Your task to perform on an android device: Show me popular videos on Youtube Image 0: 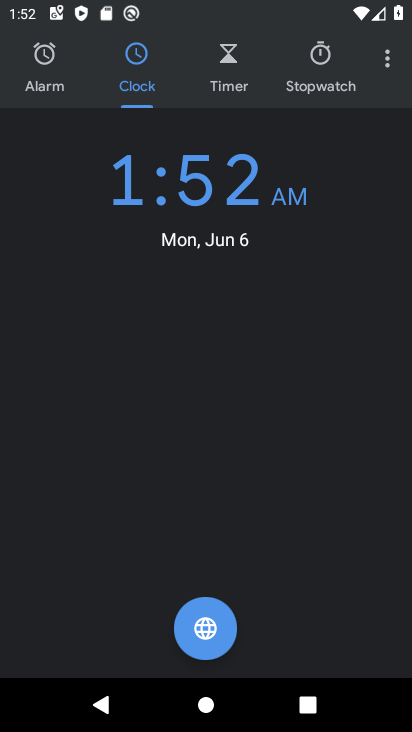
Step 0: press home button
Your task to perform on an android device: Show me popular videos on Youtube Image 1: 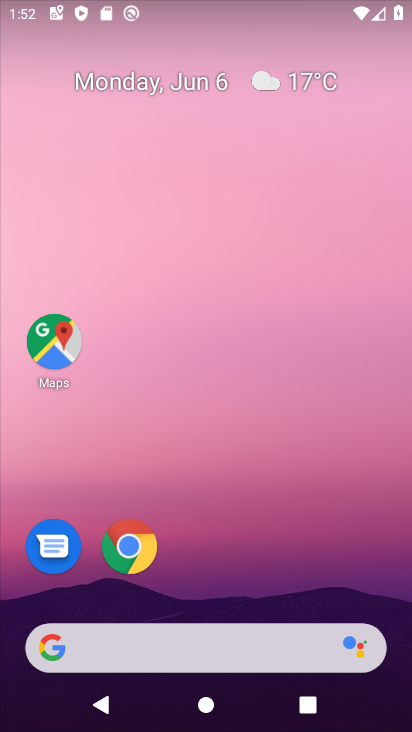
Step 1: drag from (247, 543) to (168, 150)
Your task to perform on an android device: Show me popular videos on Youtube Image 2: 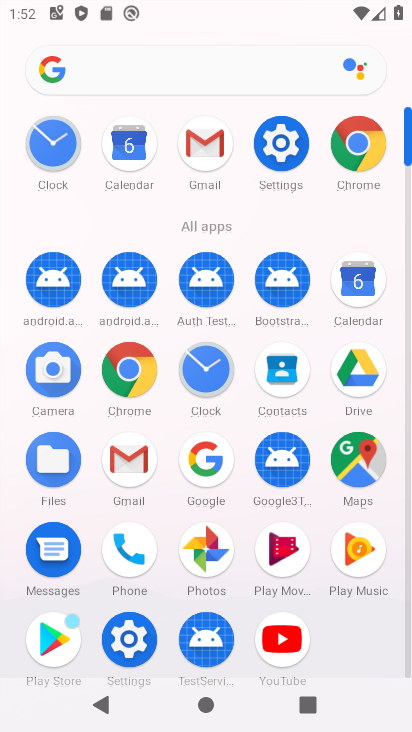
Step 2: click (291, 639)
Your task to perform on an android device: Show me popular videos on Youtube Image 3: 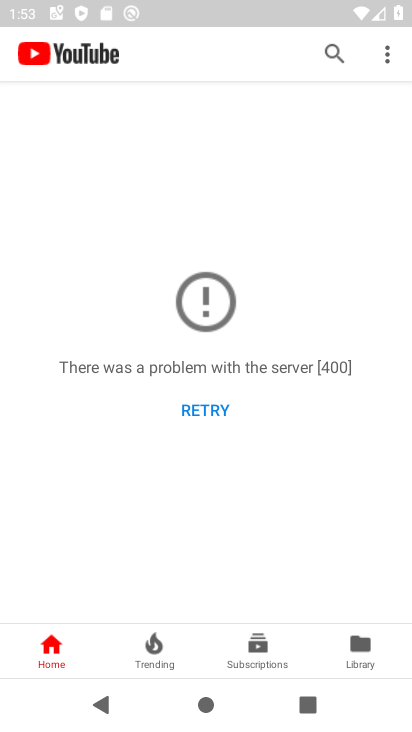
Step 3: task complete